Your task to perform on an android device: Do I have any events tomorrow? Image 0: 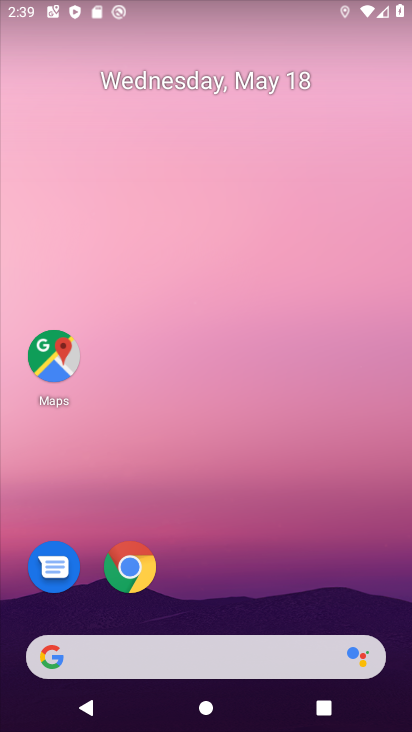
Step 0: drag from (234, 580) to (234, 378)
Your task to perform on an android device: Do I have any events tomorrow? Image 1: 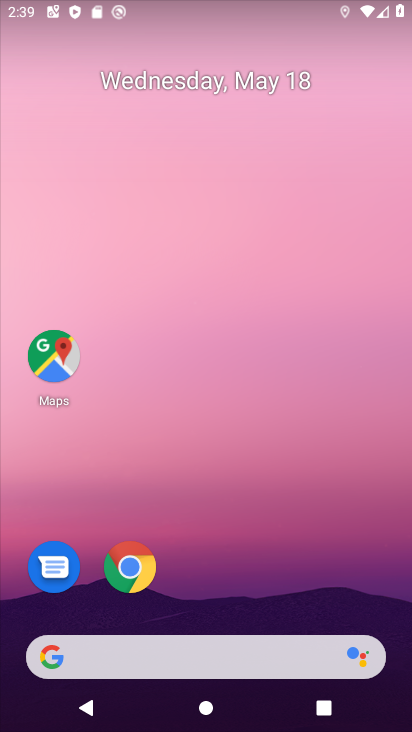
Step 1: drag from (250, 593) to (258, 269)
Your task to perform on an android device: Do I have any events tomorrow? Image 2: 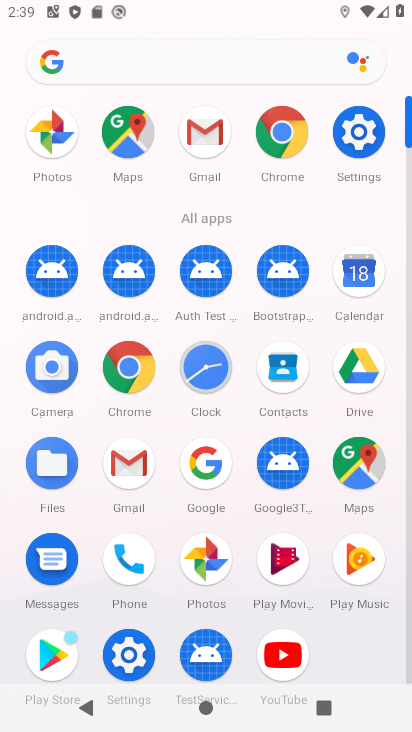
Step 2: click (351, 140)
Your task to perform on an android device: Do I have any events tomorrow? Image 3: 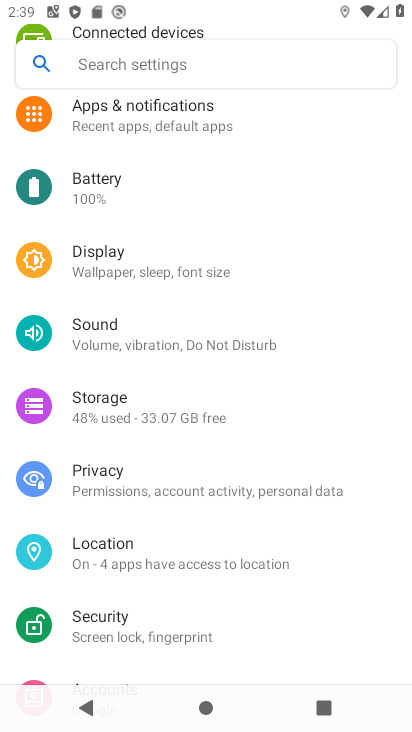
Step 3: press back button
Your task to perform on an android device: Do I have any events tomorrow? Image 4: 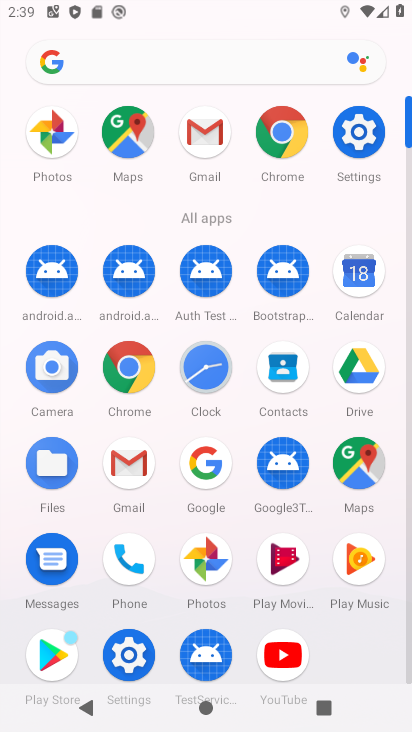
Step 4: click (355, 295)
Your task to perform on an android device: Do I have any events tomorrow? Image 5: 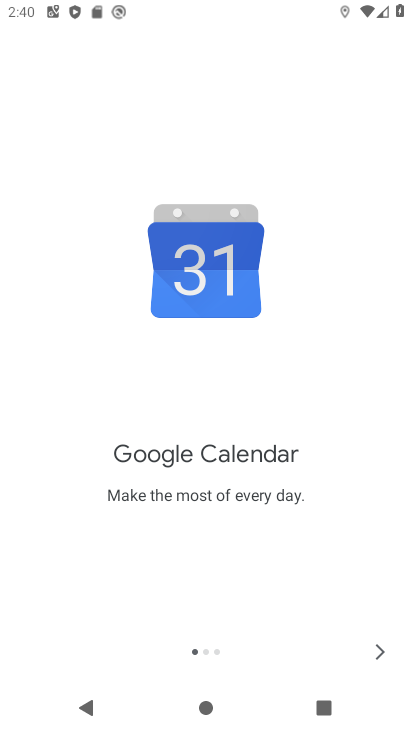
Step 5: click (365, 659)
Your task to perform on an android device: Do I have any events tomorrow? Image 6: 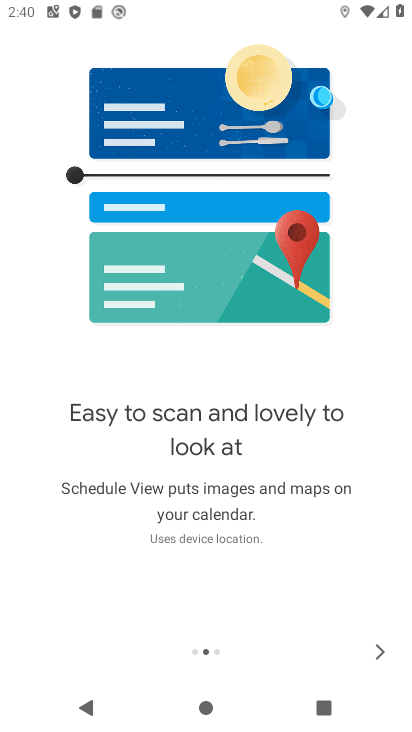
Step 6: click (381, 658)
Your task to perform on an android device: Do I have any events tomorrow? Image 7: 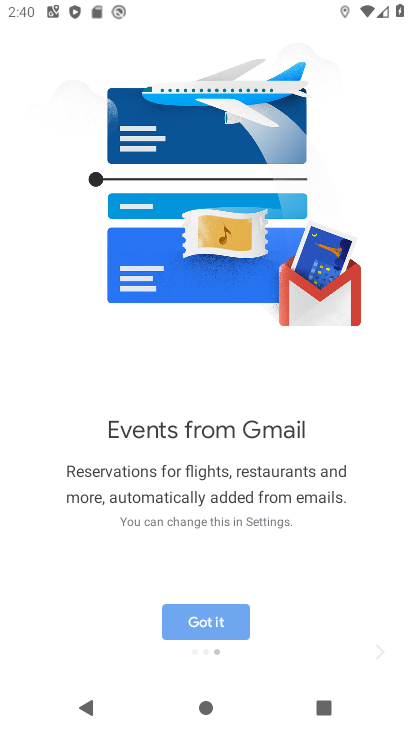
Step 7: click (381, 658)
Your task to perform on an android device: Do I have any events tomorrow? Image 8: 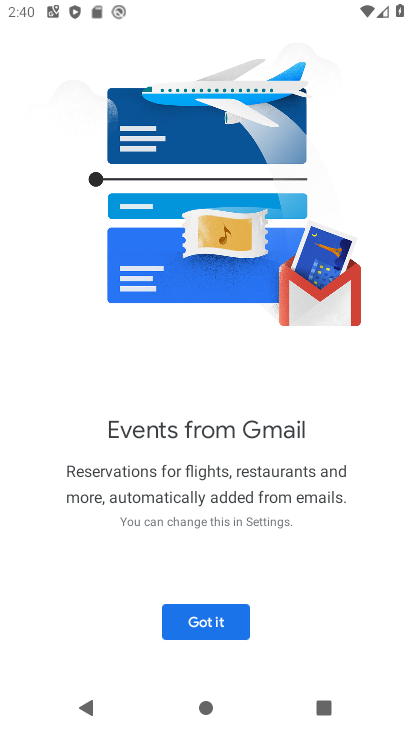
Step 8: click (188, 619)
Your task to perform on an android device: Do I have any events tomorrow? Image 9: 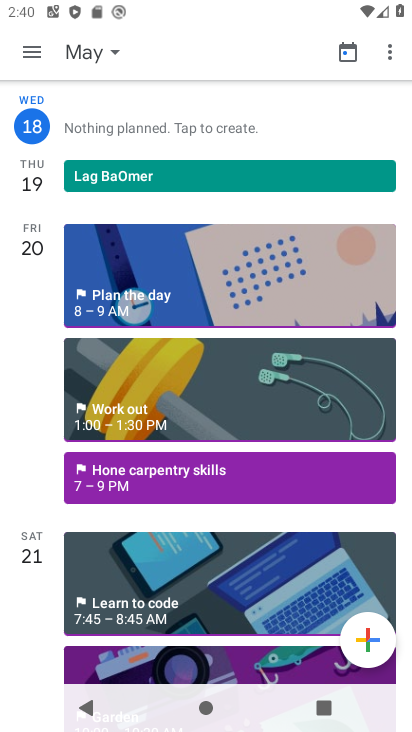
Step 9: task complete